Your task to perform on an android device: Open ESPN.com Image 0: 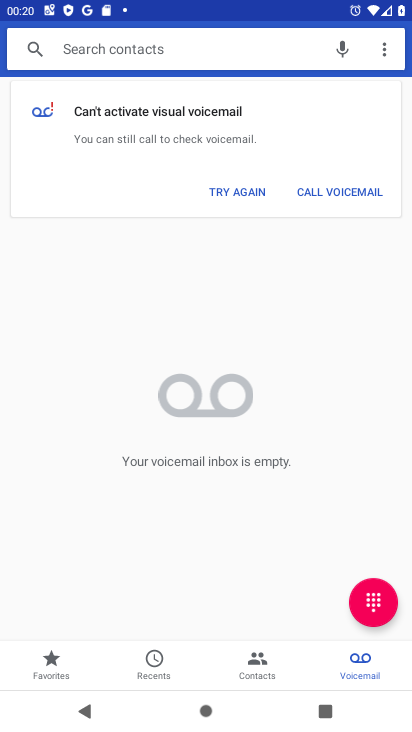
Step 0: press home button
Your task to perform on an android device: Open ESPN.com Image 1: 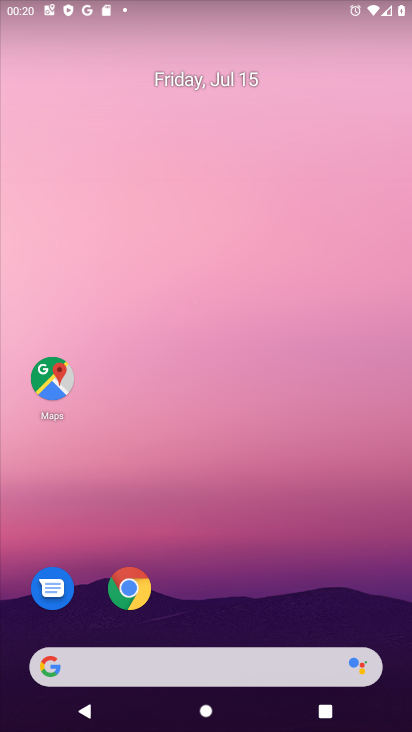
Step 1: click (138, 591)
Your task to perform on an android device: Open ESPN.com Image 2: 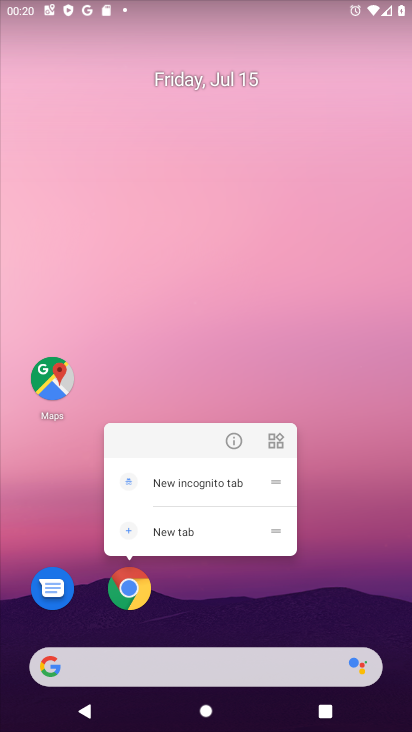
Step 2: click (129, 590)
Your task to perform on an android device: Open ESPN.com Image 3: 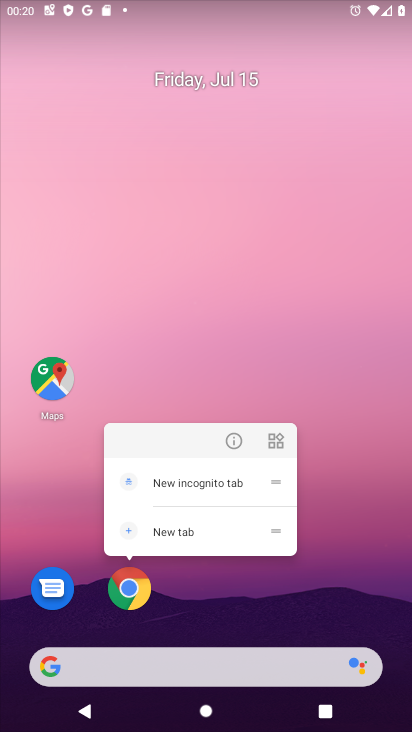
Step 3: click (129, 590)
Your task to perform on an android device: Open ESPN.com Image 4: 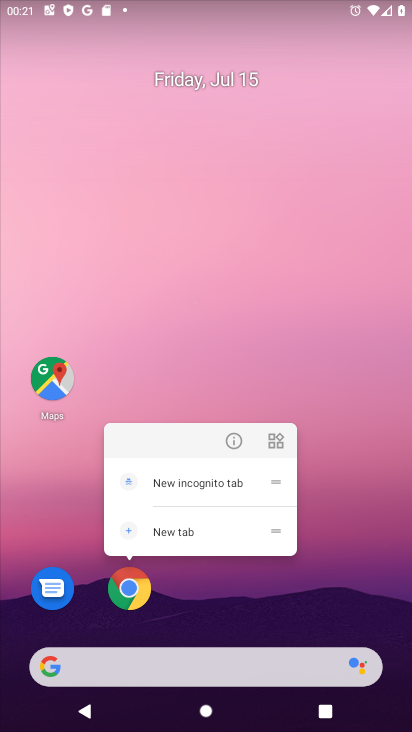
Step 4: click (129, 590)
Your task to perform on an android device: Open ESPN.com Image 5: 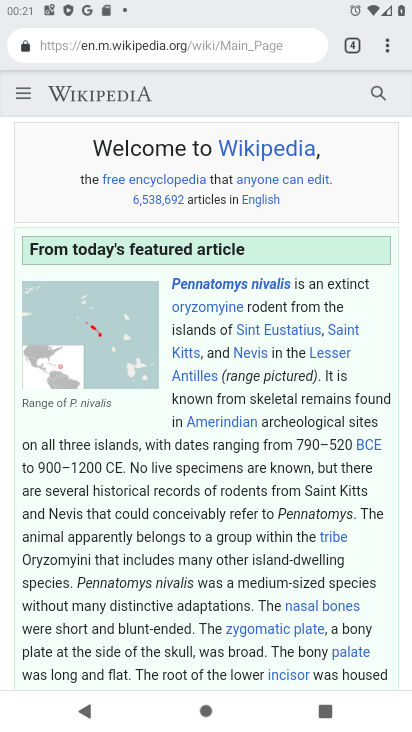
Step 5: drag from (386, 51) to (324, 85)
Your task to perform on an android device: Open ESPN.com Image 6: 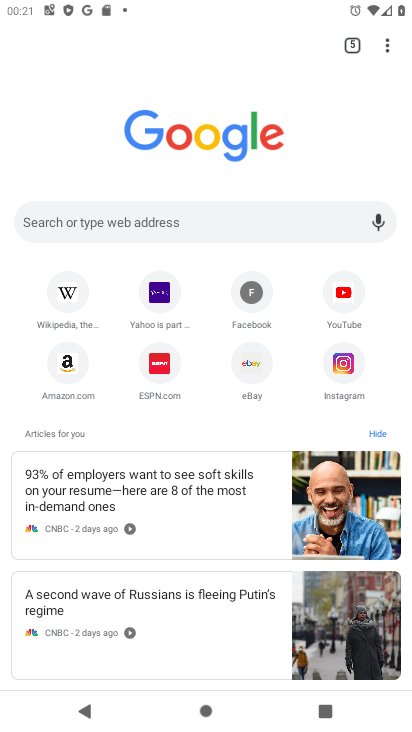
Step 6: click (157, 369)
Your task to perform on an android device: Open ESPN.com Image 7: 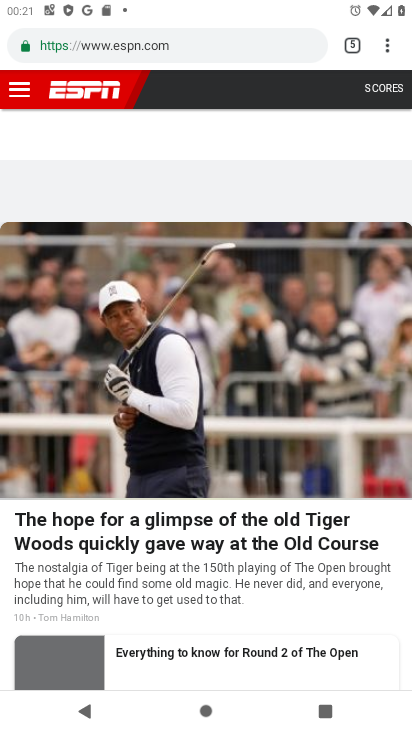
Step 7: task complete